Your task to perform on an android device: Turn on the flashlight Image 0: 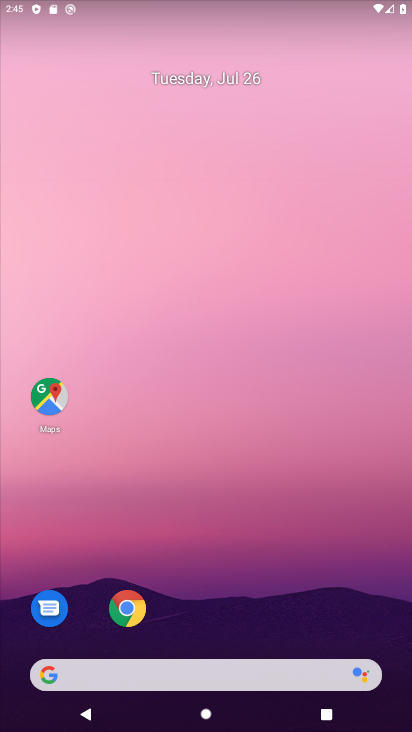
Step 0: drag from (214, 556) to (400, 213)
Your task to perform on an android device: Turn on the flashlight Image 1: 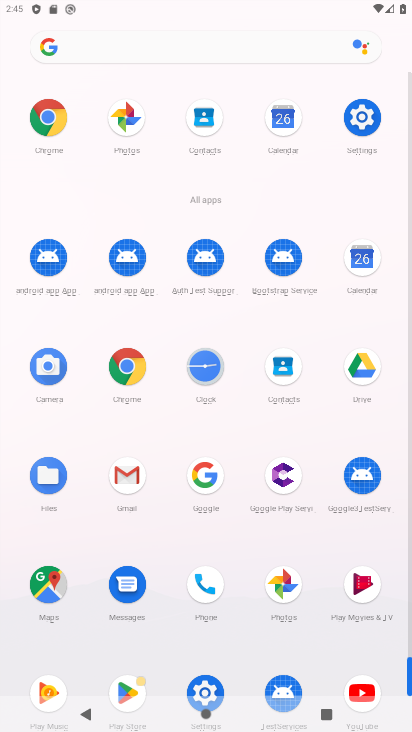
Step 1: click (360, 108)
Your task to perform on an android device: Turn on the flashlight Image 2: 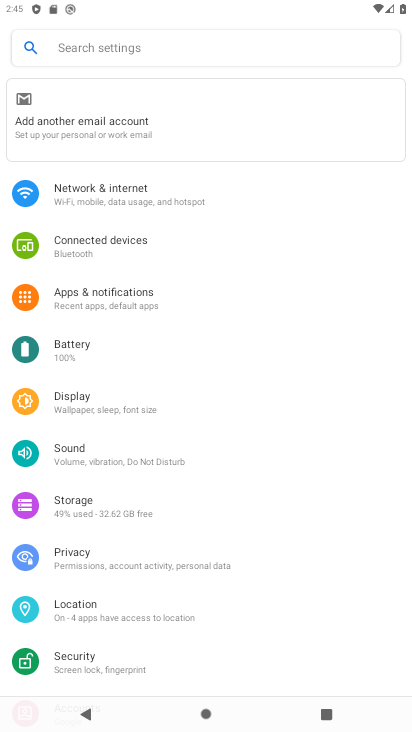
Step 2: click (147, 40)
Your task to perform on an android device: Turn on the flashlight Image 3: 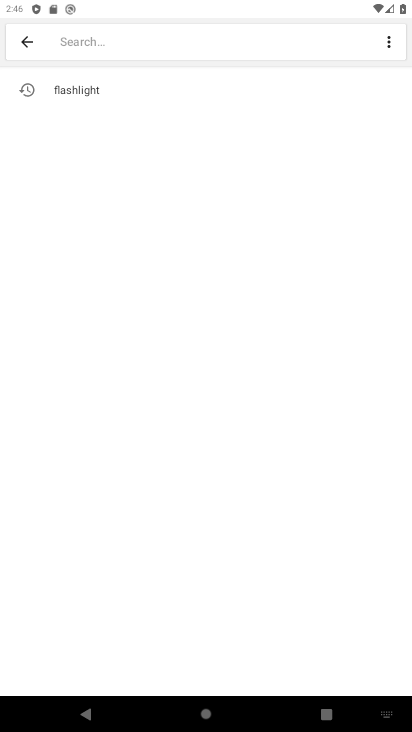
Step 3: type "flashlight"
Your task to perform on an android device: Turn on the flashlight Image 4: 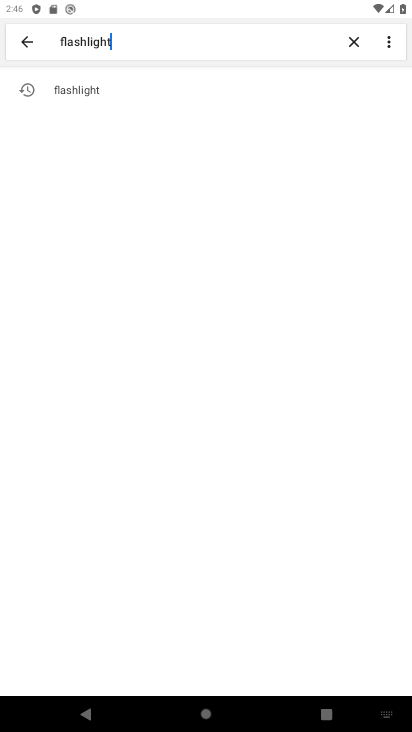
Step 4: click (80, 94)
Your task to perform on an android device: Turn on the flashlight Image 5: 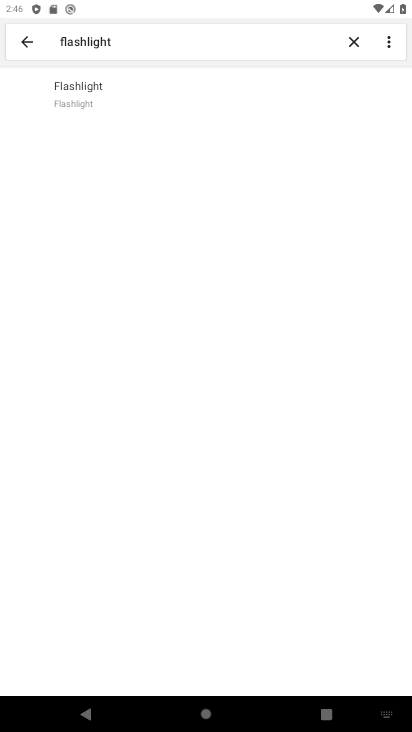
Step 5: click (69, 99)
Your task to perform on an android device: Turn on the flashlight Image 6: 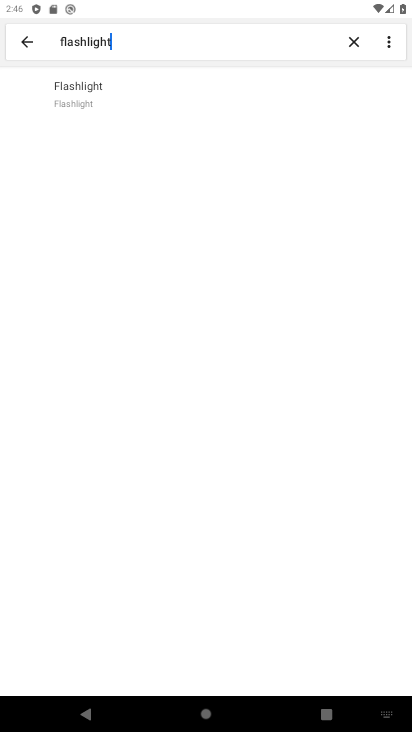
Step 6: task complete